Your task to perform on an android device: Open battery settings Image 0: 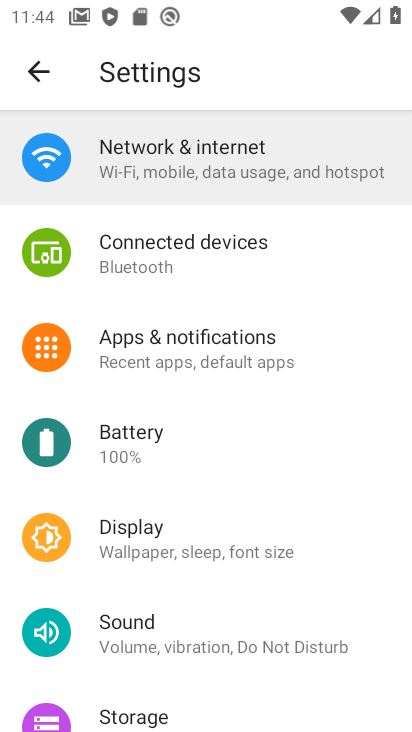
Step 0: drag from (243, 505) to (237, 333)
Your task to perform on an android device: Open battery settings Image 1: 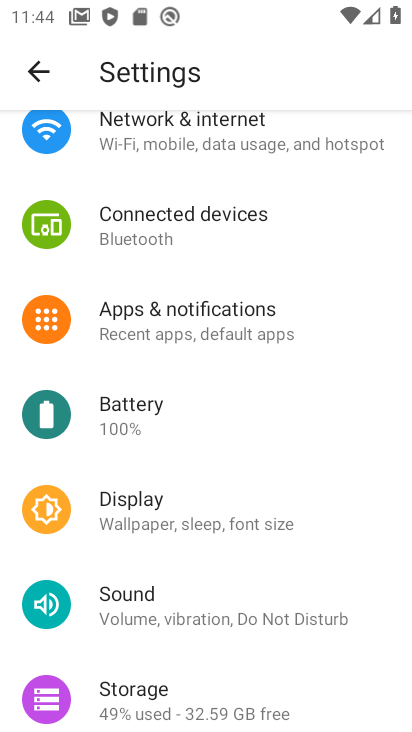
Step 1: task complete